Your task to perform on an android device: turn on wifi Image 0: 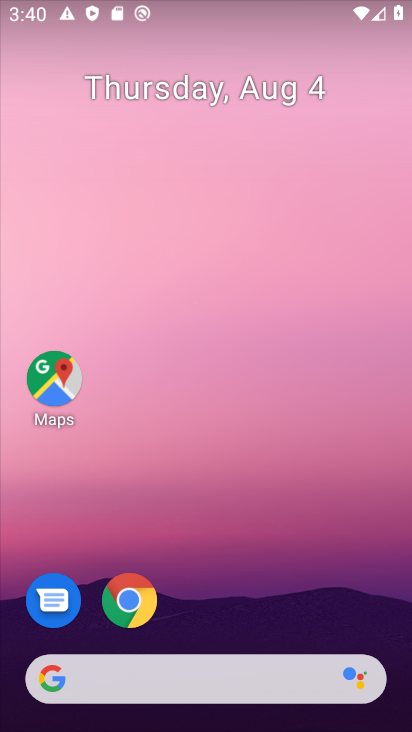
Step 0: drag from (242, 532) to (288, 16)
Your task to perform on an android device: turn on wifi Image 1: 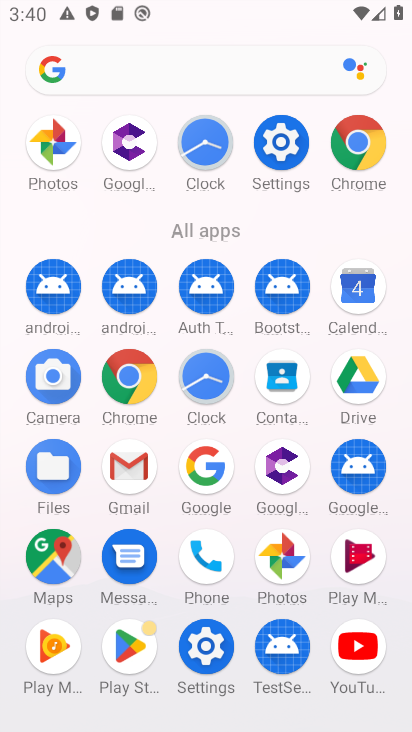
Step 1: click (287, 145)
Your task to perform on an android device: turn on wifi Image 2: 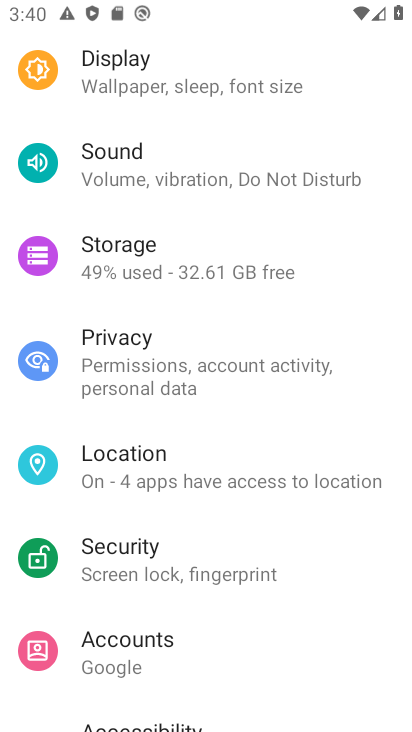
Step 2: drag from (274, 117) to (296, 630)
Your task to perform on an android device: turn on wifi Image 3: 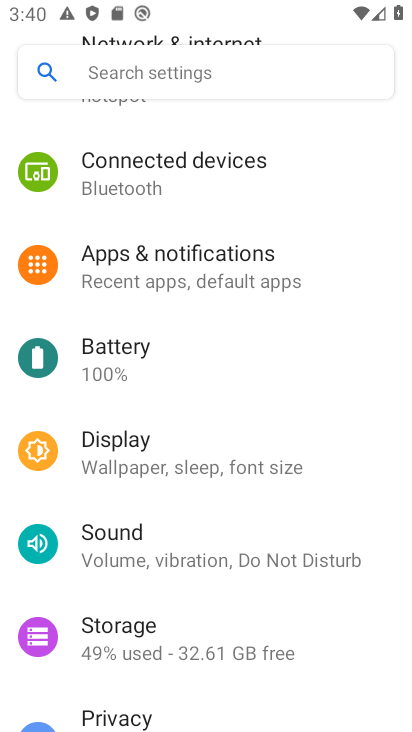
Step 3: drag from (213, 178) to (266, 704)
Your task to perform on an android device: turn on wifi Image 4: 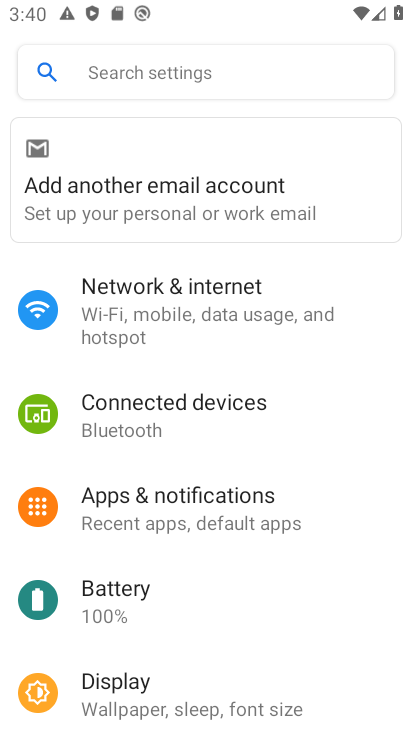
Step 4: click (181, 286)
Your task to perform on an android device: turn on wifi Image 5: 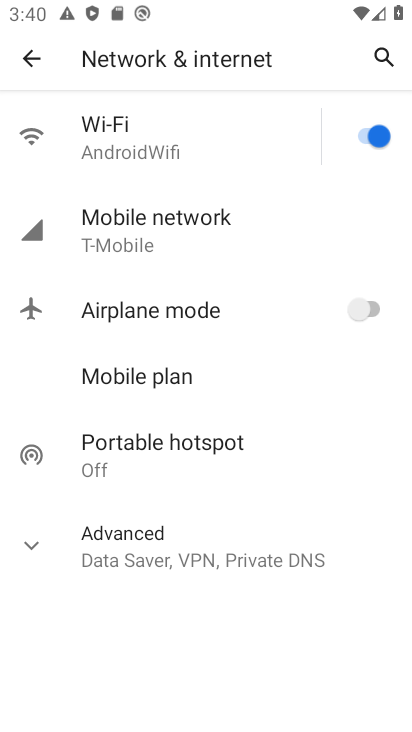
Step 5: click (197, 138)
Your task to perform on an android device: turn on wifi Image 6: 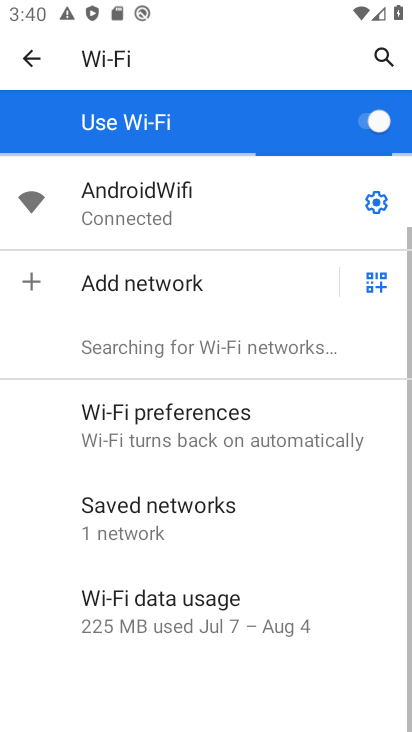
Step 6: task complete